Your task to perform on an android device: delete the emails in spam in the gmail app Image 0: 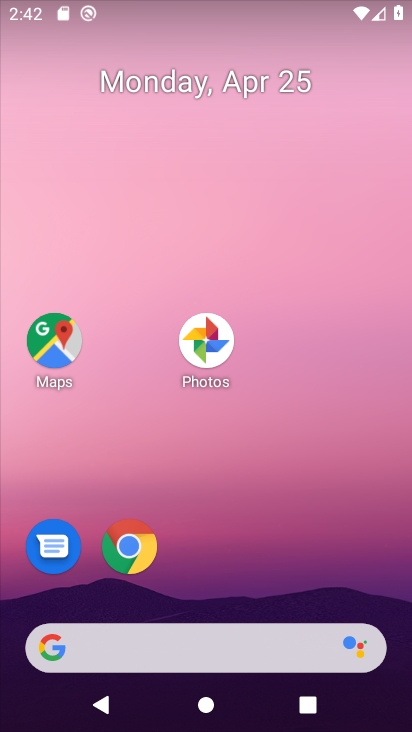
Step 0: drag from (250, 574) to (285, 157)
Your task to perform on an android device: delete the emails in spam in the gmail app Image 1: 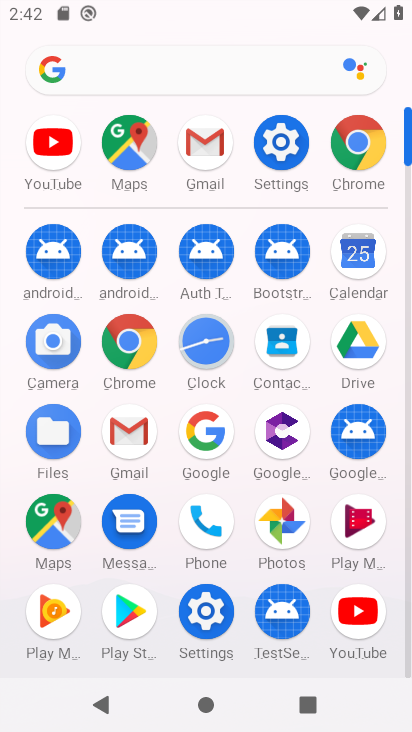
Step 1: click (206, 136)
Your task to perform on an android device: delete the emails in spam in the gmail app Image 2: 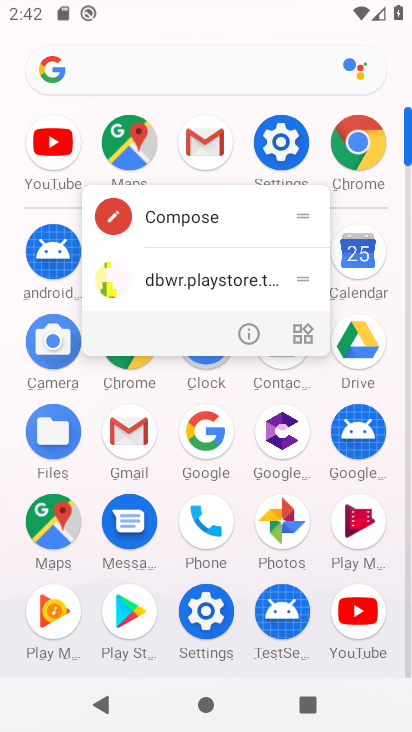
Step 2: click (198, 139)
Your task to perform on an android device: delete the emails in spam in the gmail app Image 3: 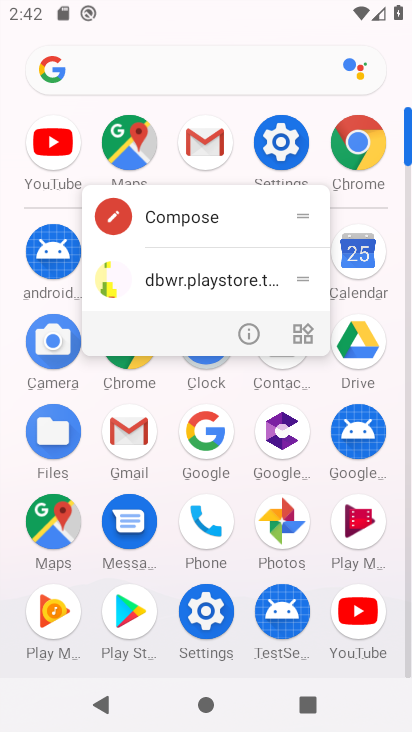
Step 3: click (198, 139)
Your task to perform on an android device: delete the emails in spam in the gmail app Image 4: 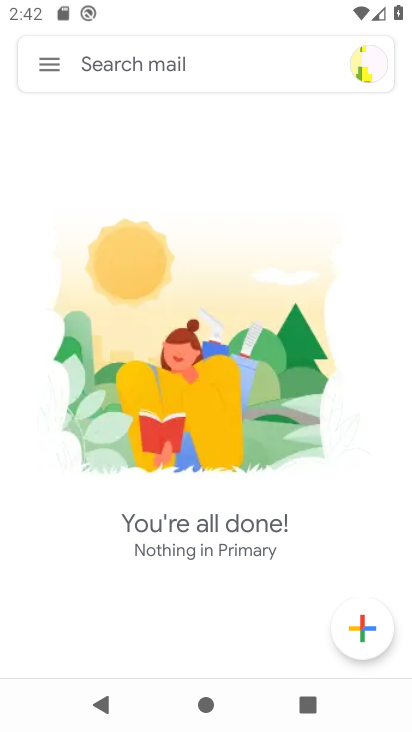
Step 4: click (47, 67)
Your task to perform on an android device: delete the emails in spam in the gmail app Image 5: 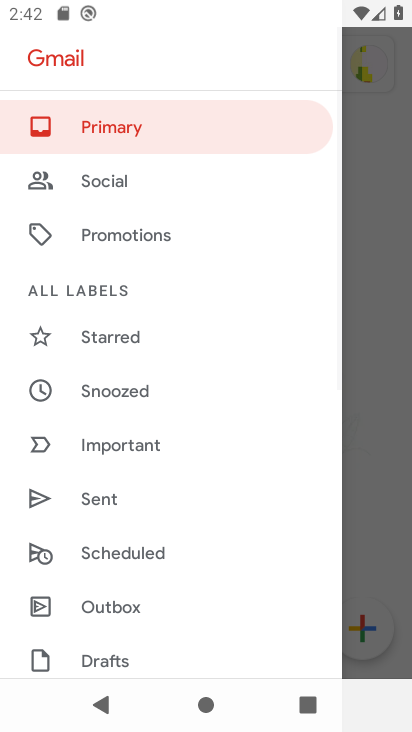
Step 5: drag from (103, 642) to (177, 275)
Your task to perform on an android device: delete the emails in spam in the gmail app Image 6: 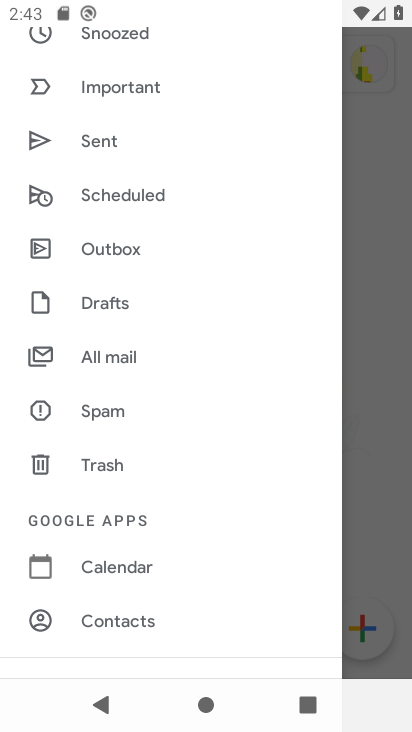
Step 6: click (125, 398)
Your task to perform on an android device: delete the emails in spam in the gmail app Image 7: 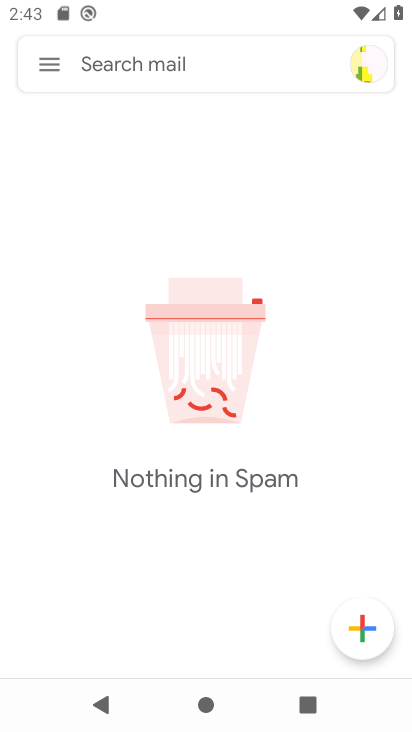
Step 7: task complete